Your task to perform on an android device: Open sound settings Image 0: 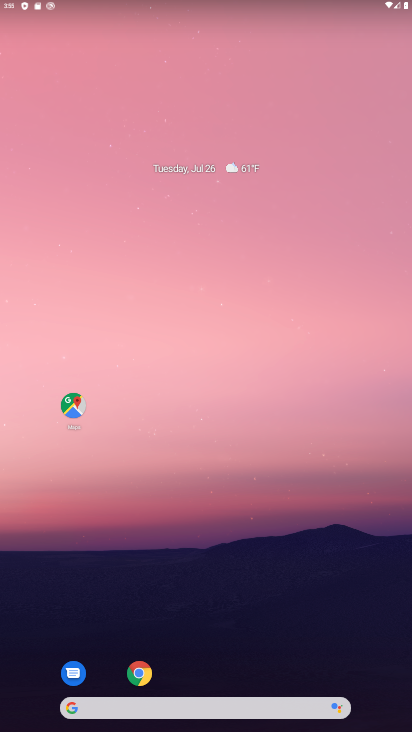
Step 0: press home button
Your task to perform on an android device: Open sound settings Image 1: 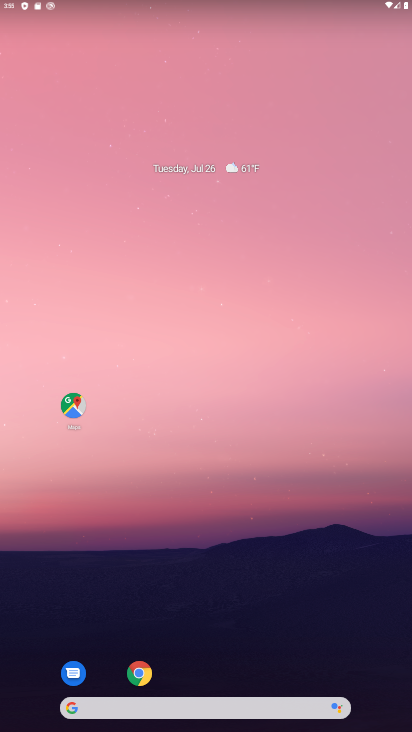
Step 1: drag from (209, 676) to (282, 18)
Your task to perform on an android device: Open sound settings Image 2: 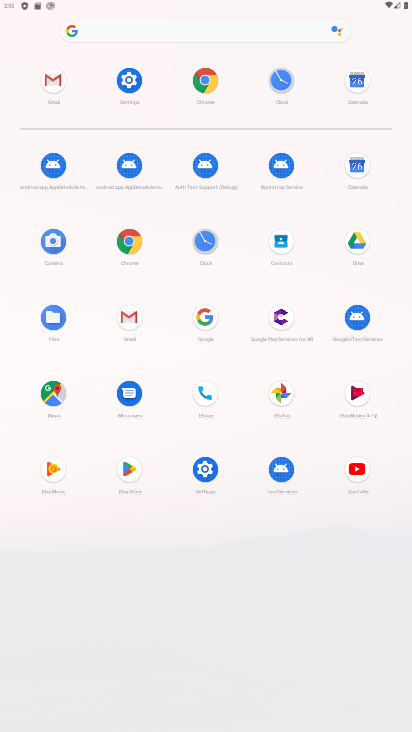
Step 2: click (202, 464)
Your task to perform on an android device: Open sound settings Image 3: 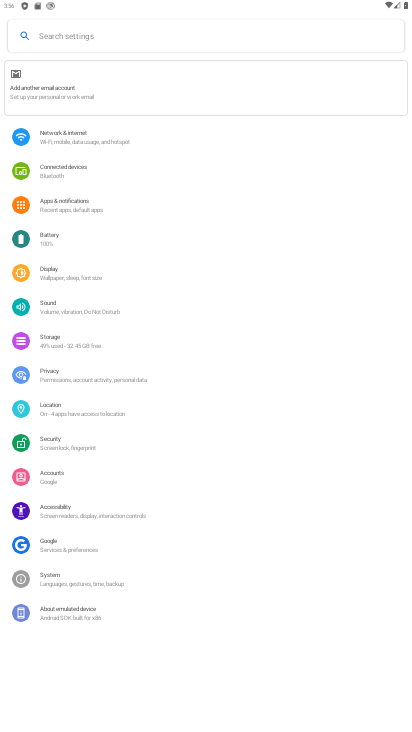
Step 3: click (67, 302)
Your task to perform on an android device: Open sound settings Image 4: 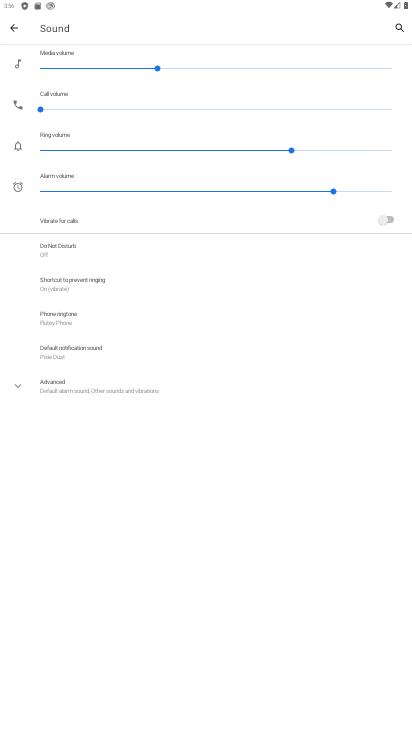
Step 4: click (18, 382)
Your task to perform on an android device: Open sound settings Image 5: 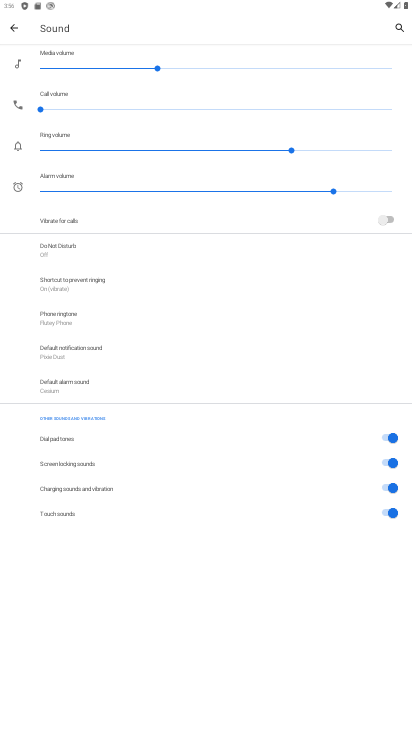
Step 5: task complete